Your task to perform on an android device: Toggle the flashlight Image 0: 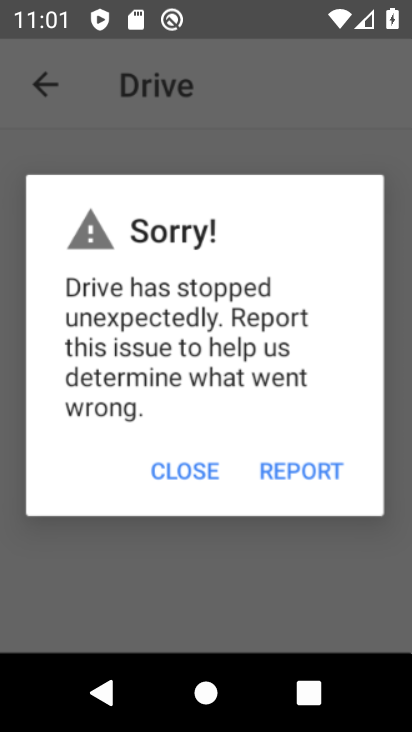
Step 0: drag from (370, 537) to (407, 252)
Your task to perform on an android device: Toggle the flashlight Image 1: 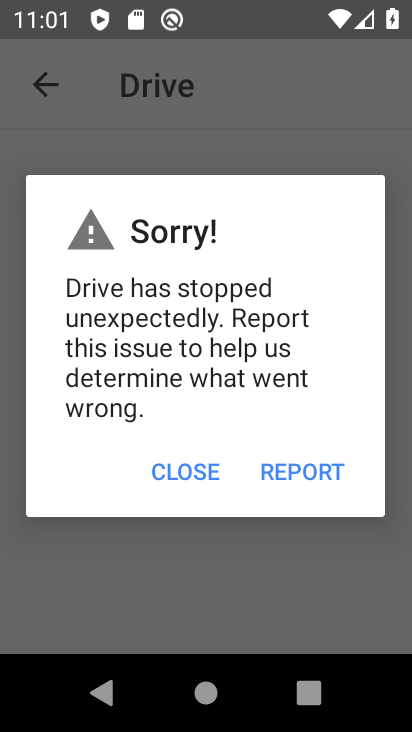
Step 1: press home button
Your task to perform on an android device: Toggle the flashlight Image 2: 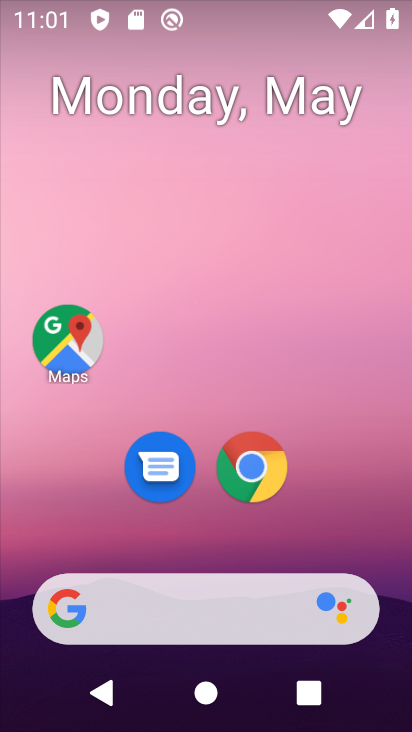
Step 2: drag from (325, 527) to (307, 121)
Your task to perform on an android device: Toggle the flashlight Image 3: 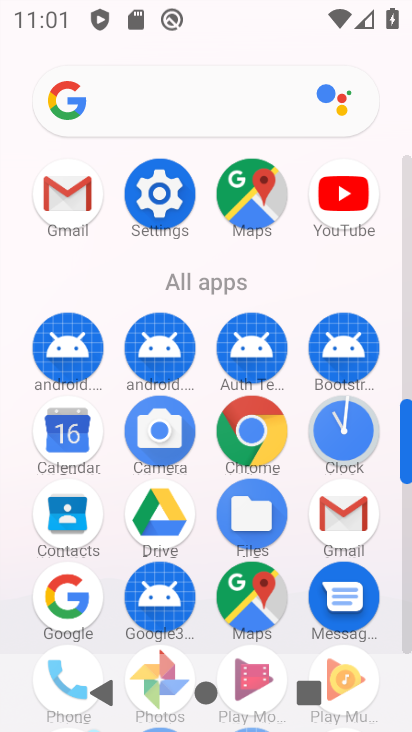
Step 3: click (193, 186)
Your task to perform on an android device: Toggle the flashlight Image 4: 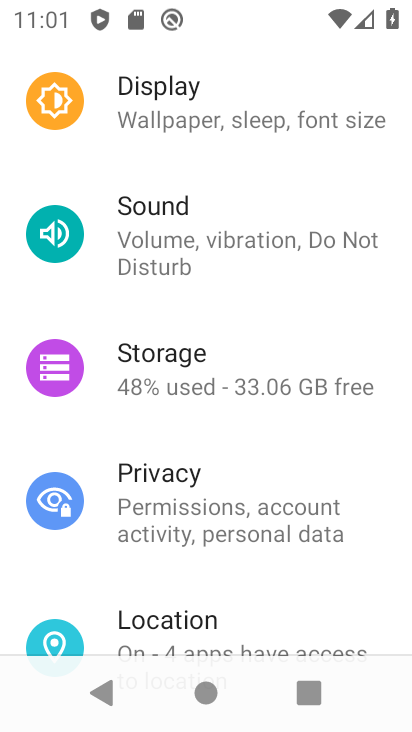
Step 4: drag from (226, 344) to (220, 719)
Your task to perform on an android device: Toggle the flashlight Image 5: 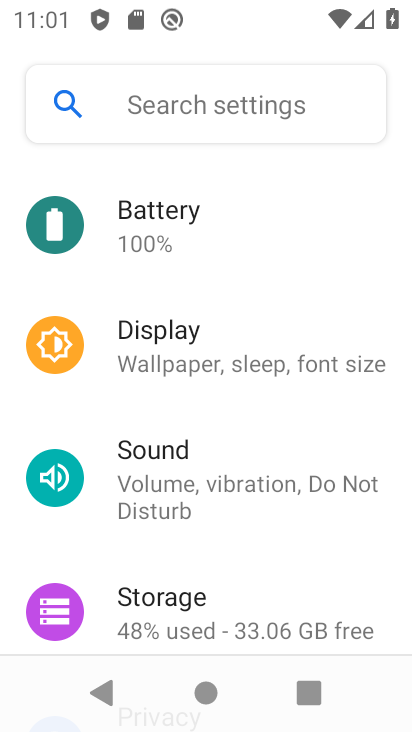
Step 5: drag from (252, 277) to (262, 690)
Your task to perform on an android device: Toggle the flashlight Image 6: 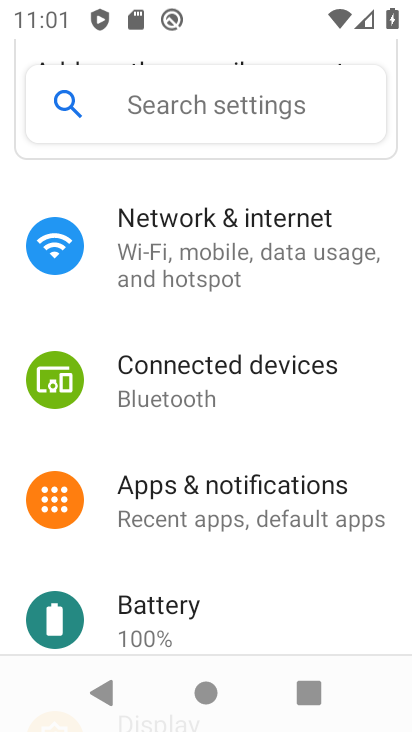
Step 6: click (251, 443)
Your task to perform on an android device: Toggle the flashlight Image 7: 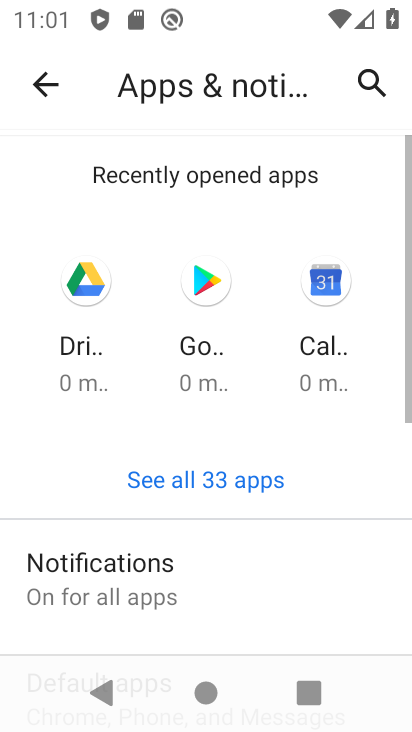
Step 7: task complete